Your task to perform on an android device: Open the calendar and show me this week's events Image 0: 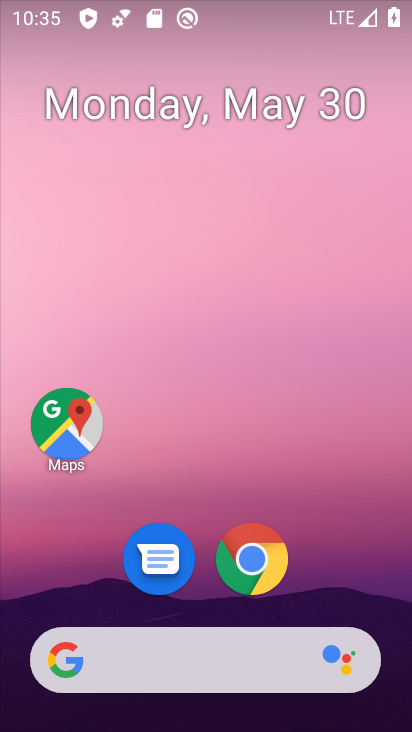
Step 0: click (272, 168)
Your task to perform on an android device: Open the calendar and show me this week's events Image 1: 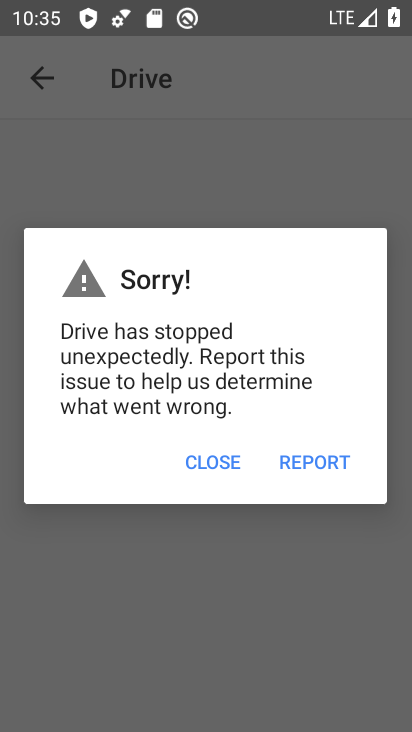
Step 1: press home button
Your task to perform on an android device: Open the calendar and show me this week's events Image 2: 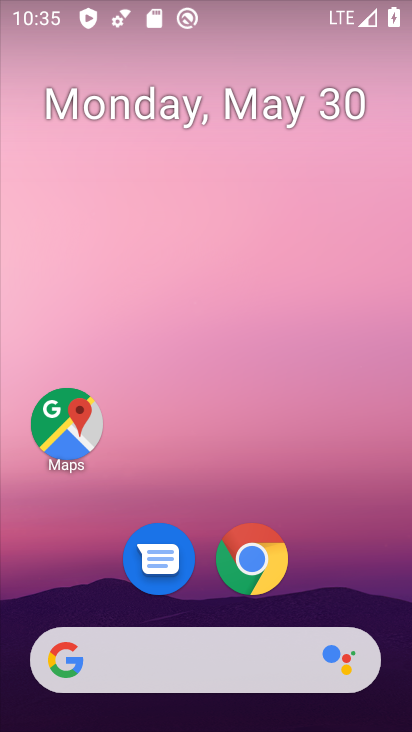
Step 2: drag from (395, 585) to (292, 243)
Your task to perform on an android device: Open the calendar and show me this week's events Image 3: 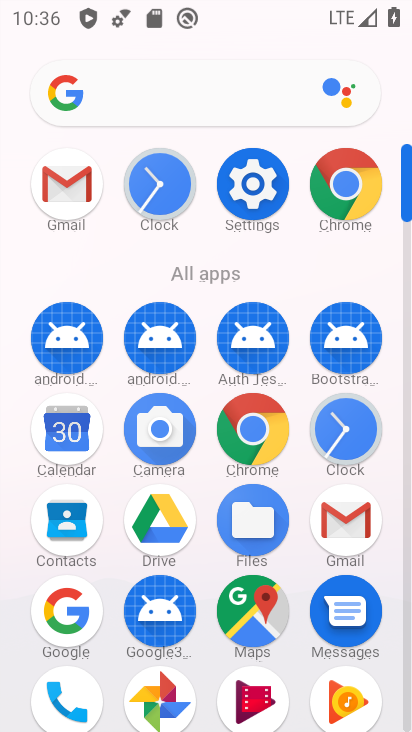
Step 3: click (54, 437)
Your task to perform on an android device: Open the calendar and show me this week's events Image 4: 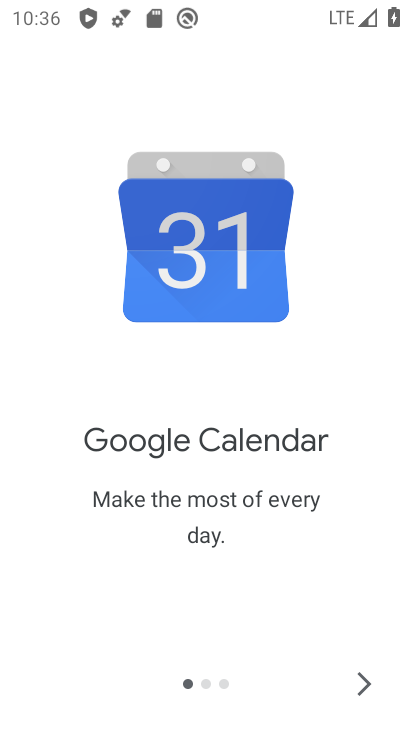
Step 4: click (357, 691)
Your task to perform on an android device: Open the calendar and show me this week's events Image 5: 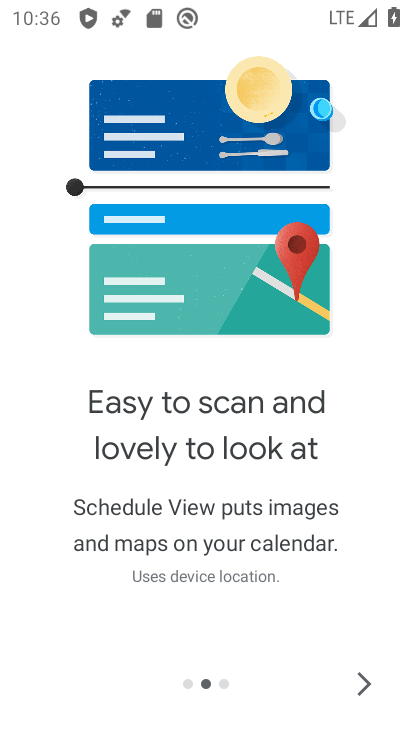
Step 5: click (357, 691)
Your task to perform on an android device: Open the calendar and show me this week's events Image 6: 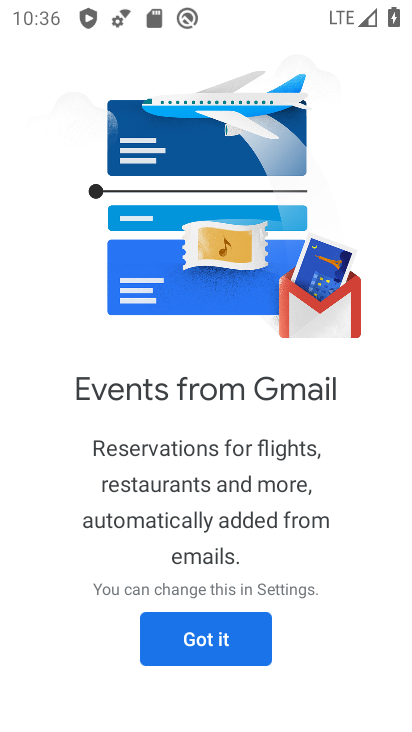
Step 6: click (246, 649)
Your task to perform on an android device: Open the calendar and show me this week's events Image 7: 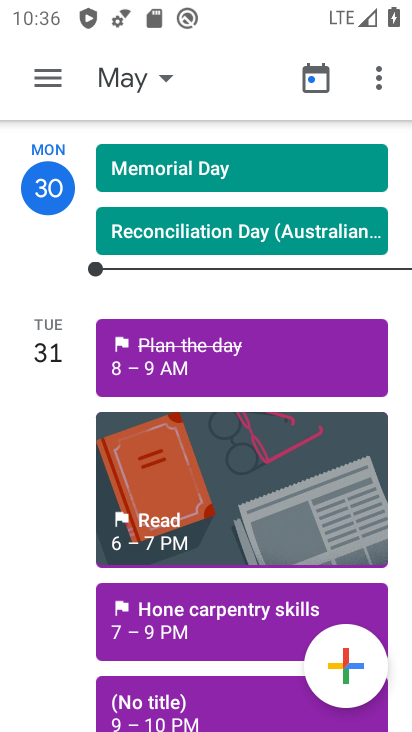
Step 7: click (40, 82)
Your task to perform on an android device: Open the calendar and show me this week's events Image 8: 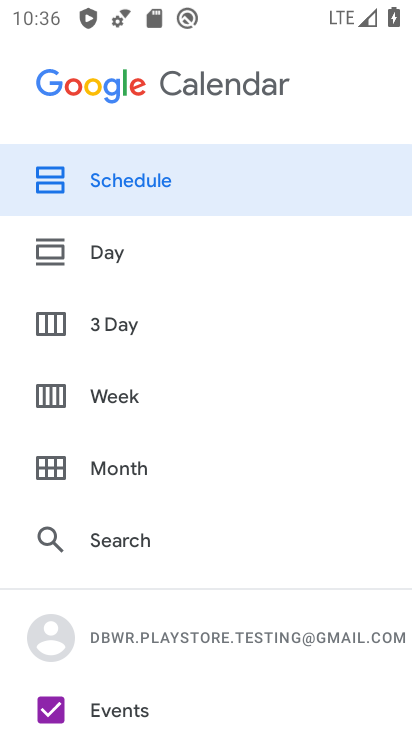
Step 8: drag from (168, 657) to (149, 272)
Your task to perform on an android device: Open the calendar and show me this week's events Image 9: 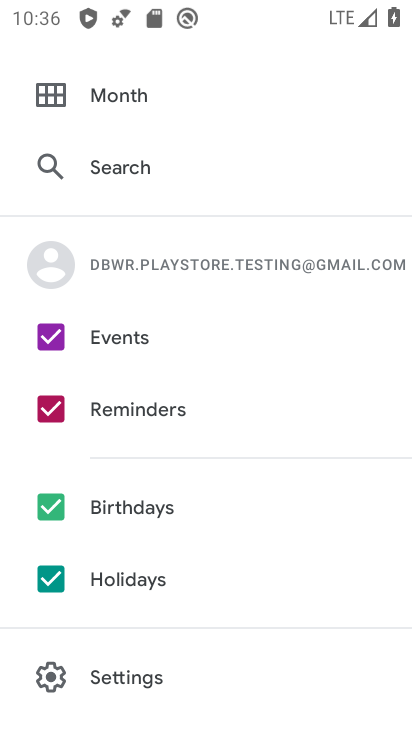
Step 9: click (51, 575)
Your task to perform on an android device: Open the calendar and show me this week's events Image 10: 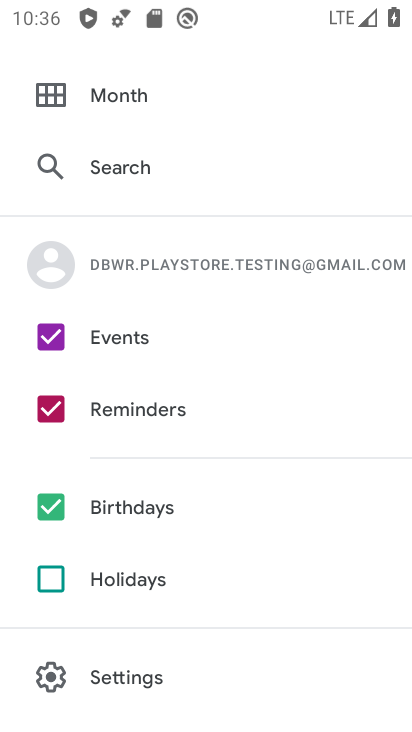
Step 10: click (53, 507)
Your task to perform on an android device: Open the calendar and show me this week's events Image 11: 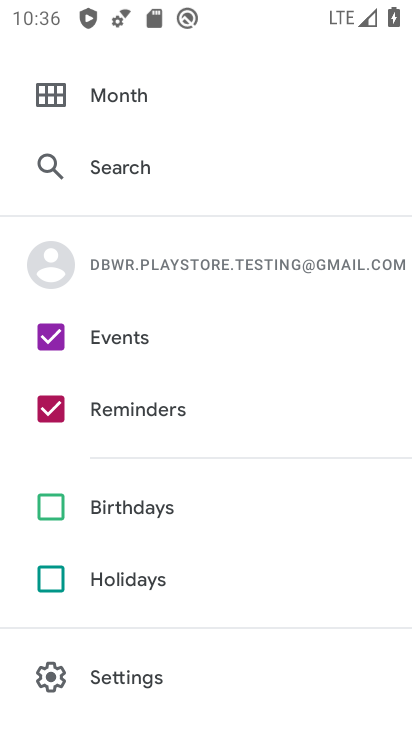
Step 11: click (52, 412)
Your task to perform on an android device: Open the calendar and show me this week's events Image 12: 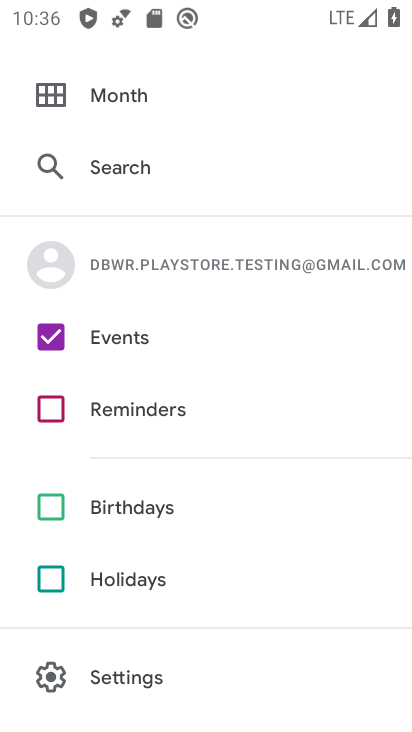
Step 12: drag from (136, 196) to (142, 547)
Your task to perform on an android device: Open the calendar and show me this week's events Image 13: 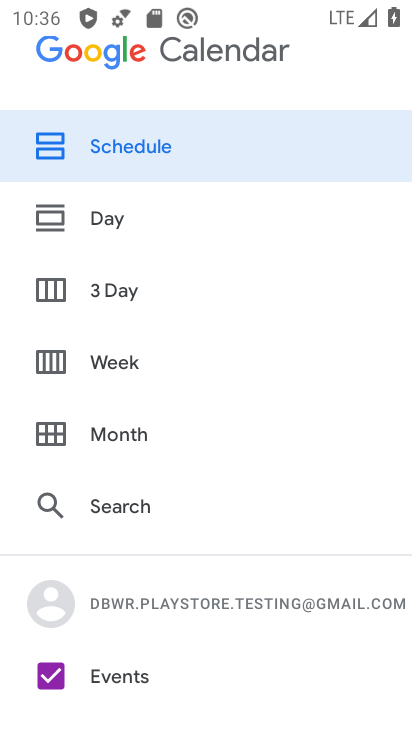
Step 13: click (125, 364)
Your task to perform on an android device: Open the calendar and show me this week's events Image 14: 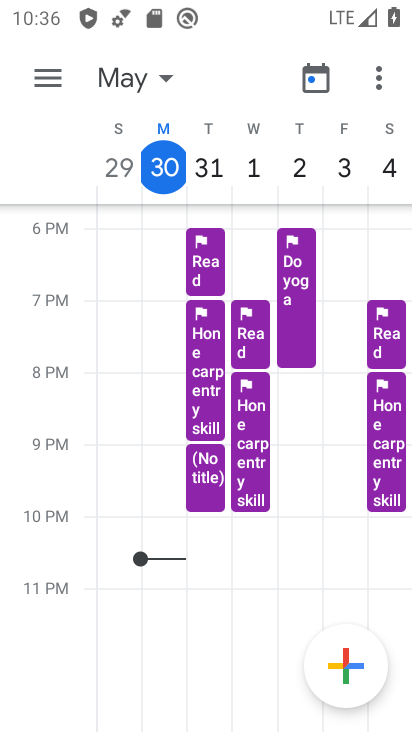
Step 14: task complete